Your task to perform on an android device: toggle location history Image 0: 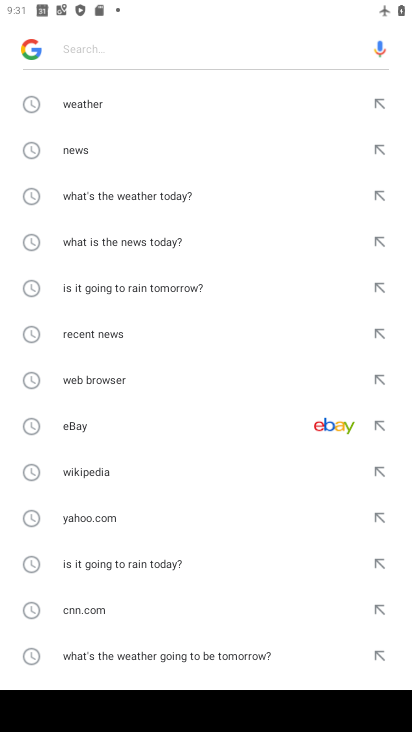
Step 0: press home button
Your task to perform on an android device: toggle location history Image 1: 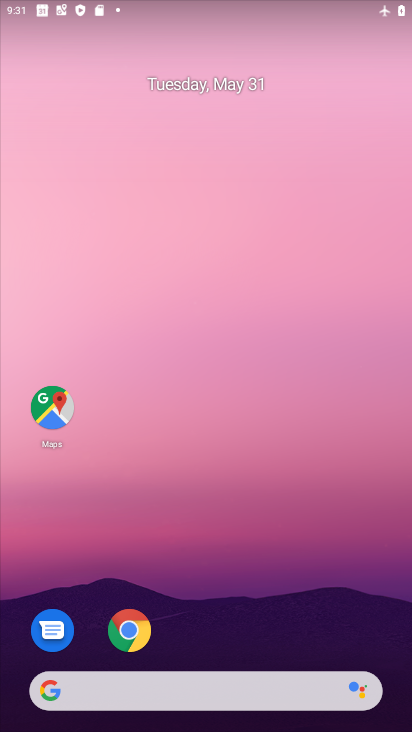
Step 1: drag from (182, 595) to (222, 201)
Your task to perform on an android device: toggle location history Image 2: 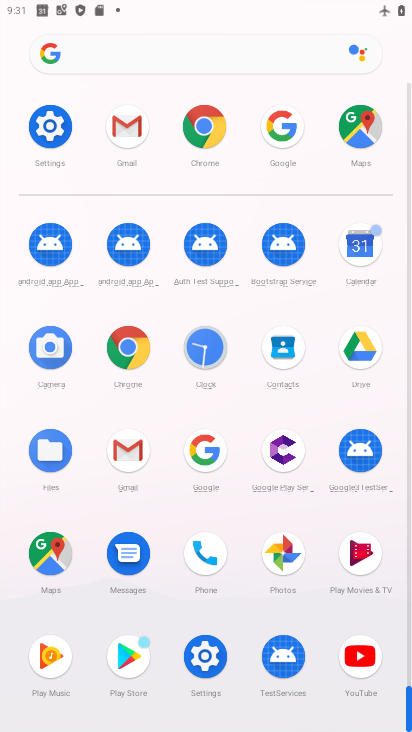
Step 2: click (51, 109)
Your task to perform on an android device: toggle location history Image 3: 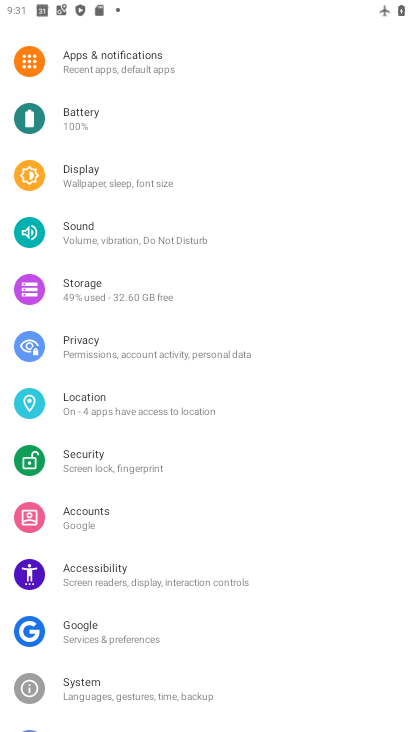
Step 3: click (115, 401)
Your task to perform on an android device: toggle location history Image 4: 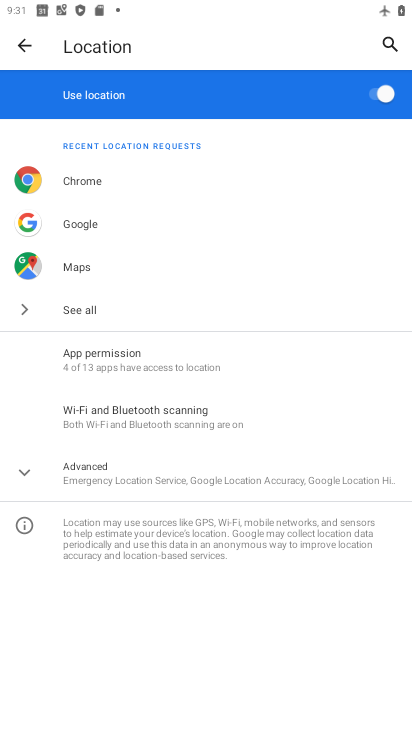
Step 4: click (127, 472)
Your task to perform on an android device: toggle location history Image 5: 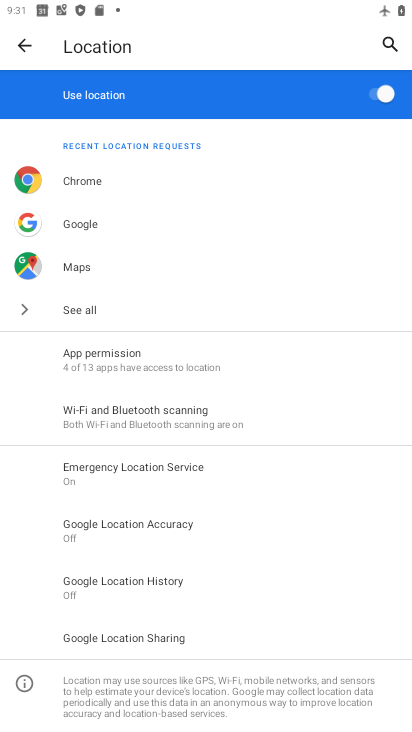
Step 5: click (204, 591)
Your task to perform on an android device: toggle location history Image 6: 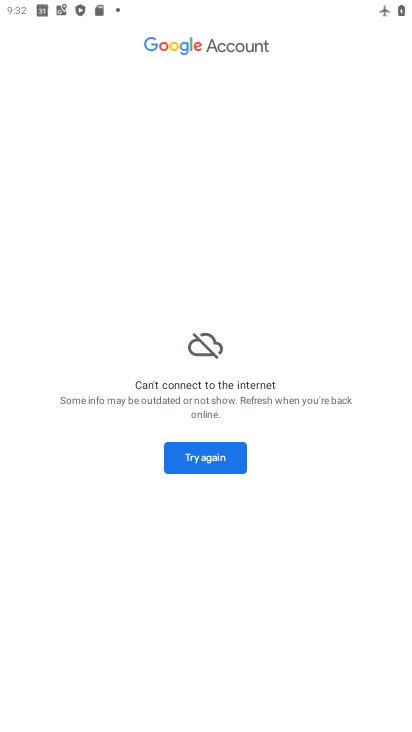
Step 6: task complete